Your task to perform on an android device: change your default location settings in chrome Image 0: 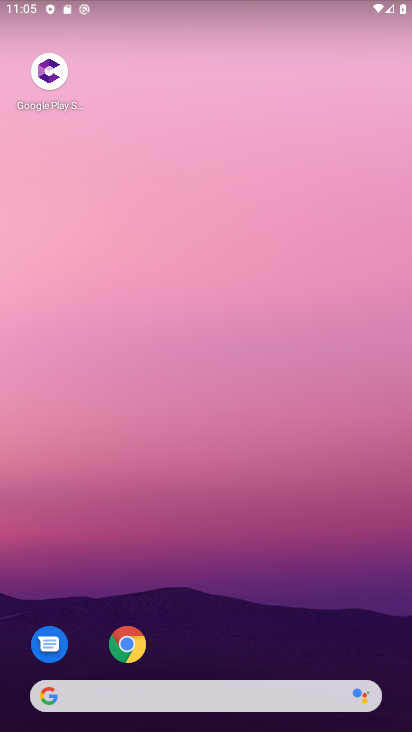
Step 0: press home button
Your task to perform on an android device: change your default location settings in chrome Image 1: 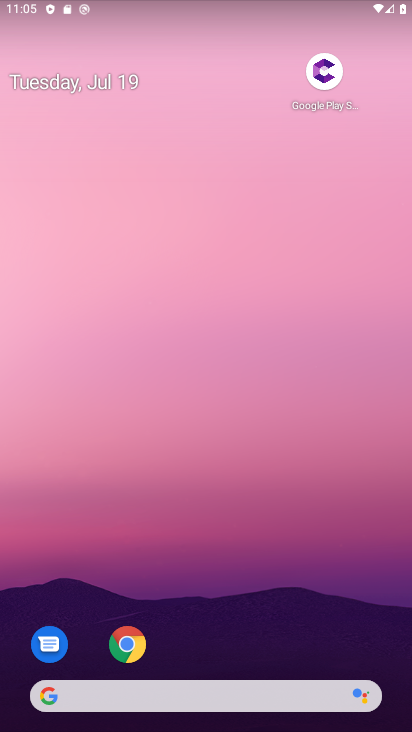
Step 1: drag from (322, 568) to (321, 63)
Your task to perform on an android device: change your default location settings in chrome Image 2: 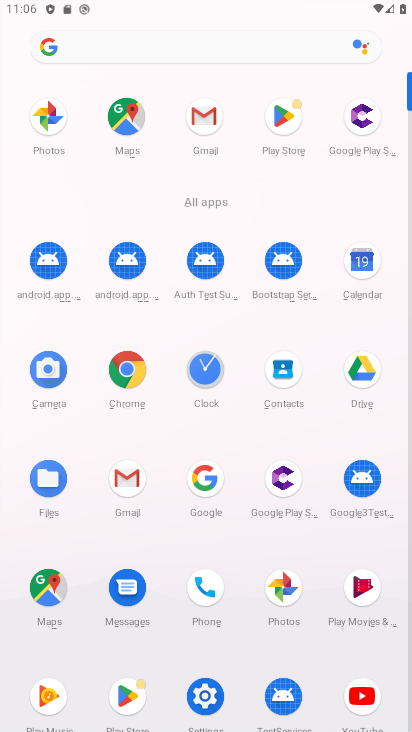
Step 2: click (129, 354)
Your task to perform on an android device: change your default location settings in chrome Image 3: 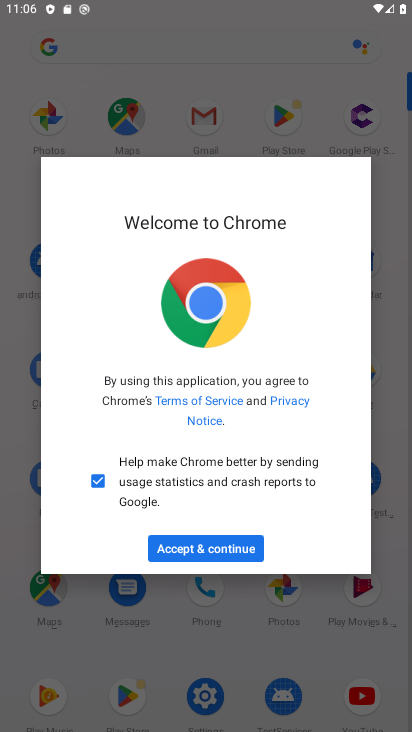
Step 3: click (211, 546)
Your task to perform on an android device: change your default location settings in chrome Image 4: 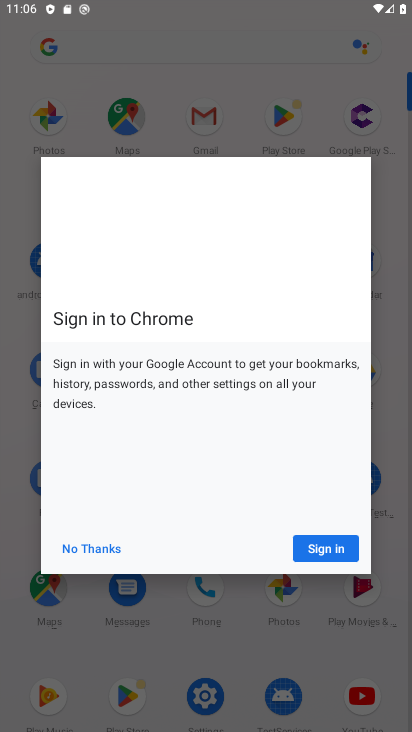
Step 4: click (344, 547)
Your task to perform on an android device: change your default location settings in chrome Image 5: 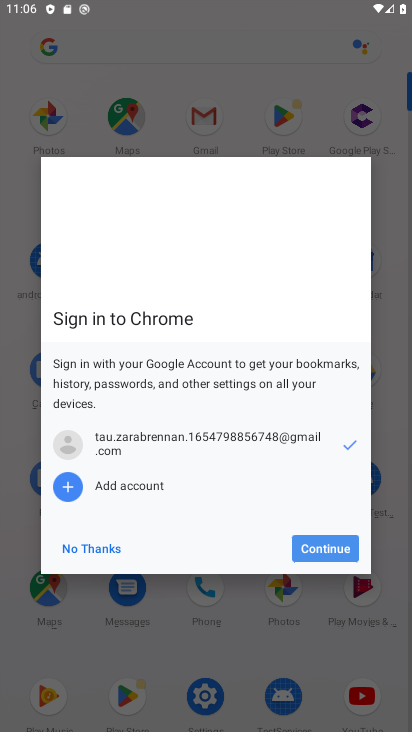
Step 5: click (336, 549)
Your task to perform on an android device: change your default location settings in chrome Image 6: 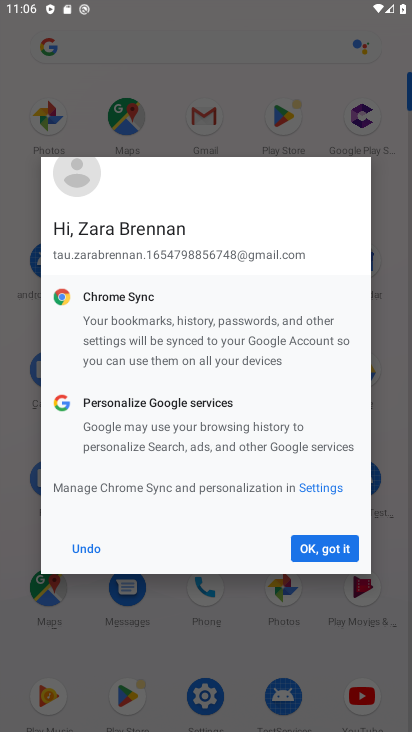
Step 6: click (322, 558)
Your task to perform on an android device: change your default location settings in chrome Image 7: 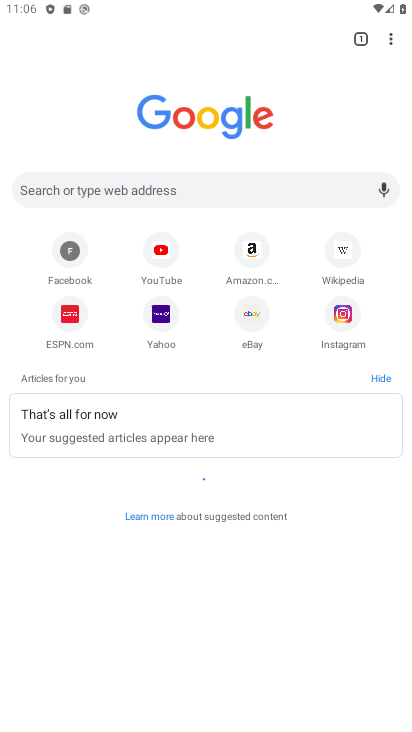
Step 7: press home button
Your task to perform on an android device: change your default location settings in chrome Image 8: 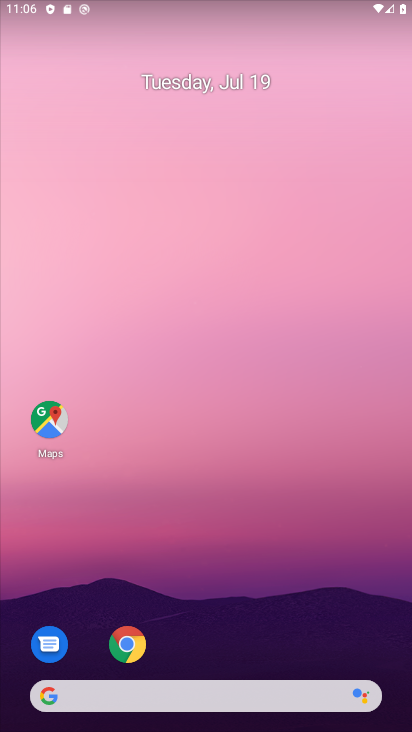
Step 8: click (117, 650)
Your task to perform on an android device: change your default location settings in chrome Image 9: 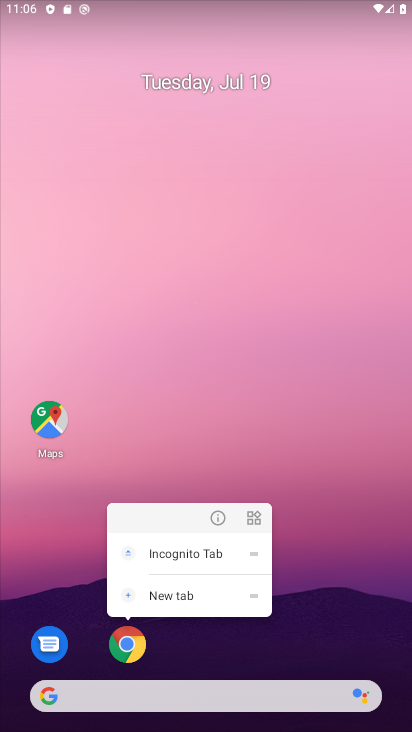
Step 9: click (213, 515)
Your task to perform on an android device: change your default location settings in chrome Image 10: 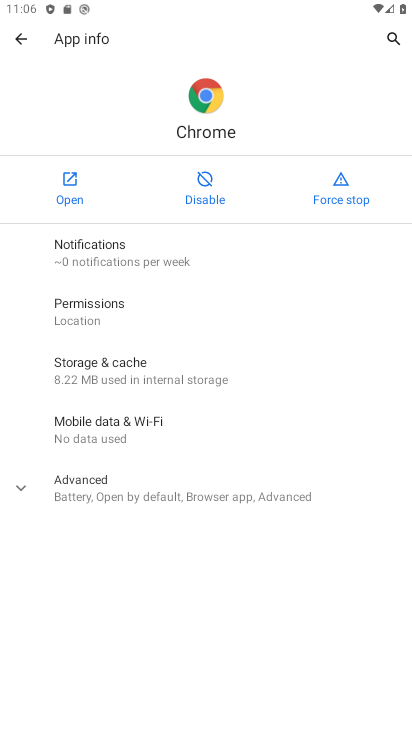
Step 10: click (77, 326)
Your task to perform on an android device: change your default location settings in chrome Image 11: 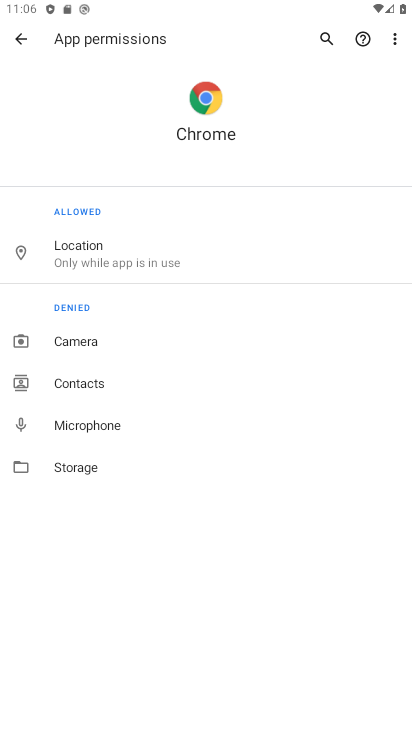
Step 11: click (76, 259)
Your task to perform on an android device: change your default location settings in chrome Image 12: 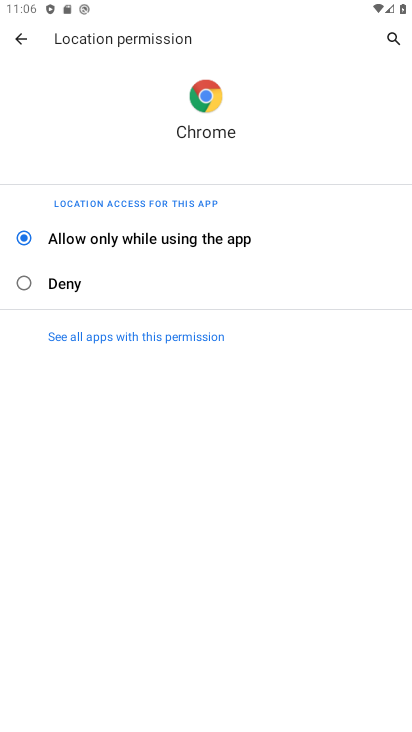
Step 12: click (60, 277)
Your task to perform on an android device: change your default location settings in chrome Image 13: 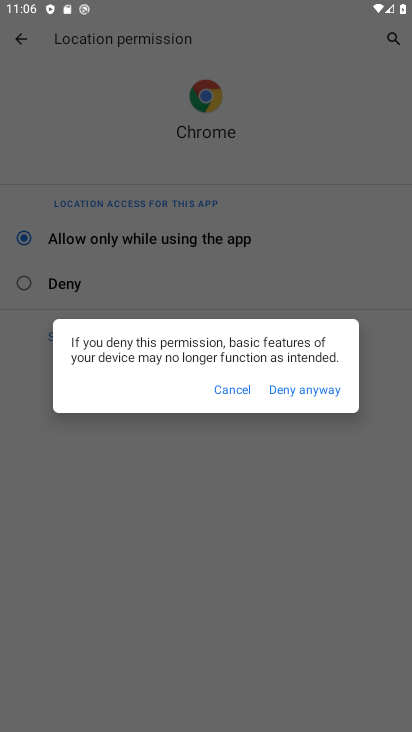
Step 13: task complete